Your task to perform on an android device: Open internet settings Image 0: 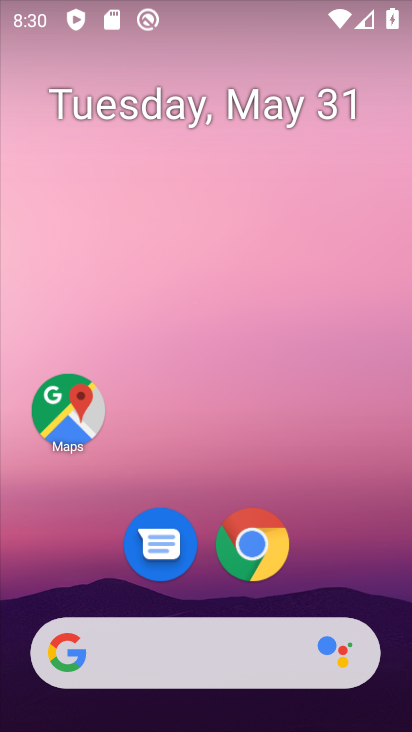
Step 0: drag from (335, 505) to (382, 21)
Your task to perform on an android device: Open internet settings Image 1: 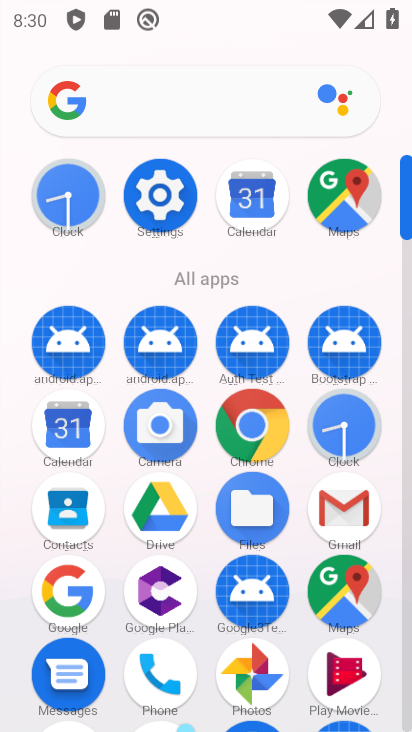
Step 1: click (163, 205)
Your task to perform on an android device: Open internet settings Image 2: 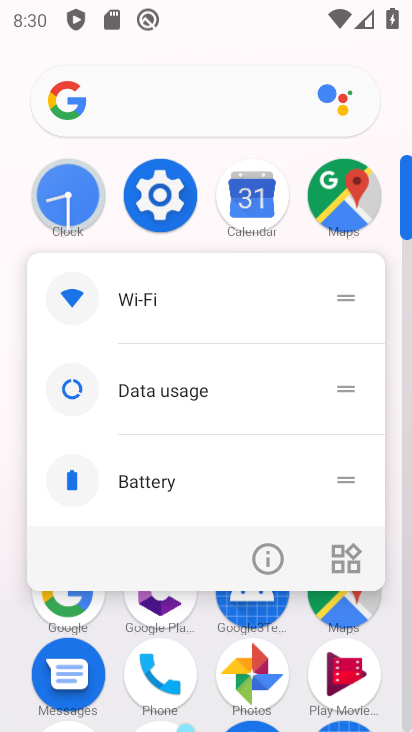
Step 2: click (164, 190)
Your task to perform on an android device: Open internet settings Image 3: 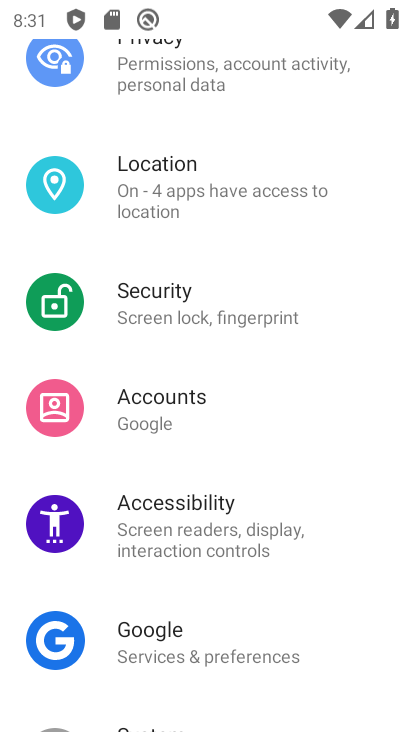
Step 3: drag from (200, 189) to (241, 668)
Your task to perform on an android device: Open internet settings Image 4: 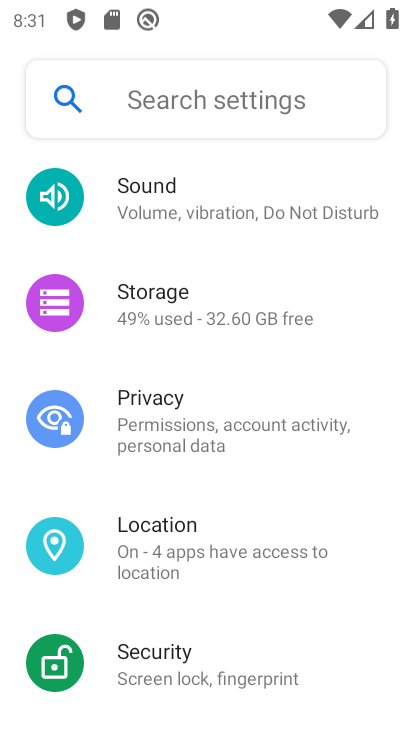
Step 4: drag from (203, 248) to (181, 715)
Your task to perform on an android device: Open internet settings Image 5: 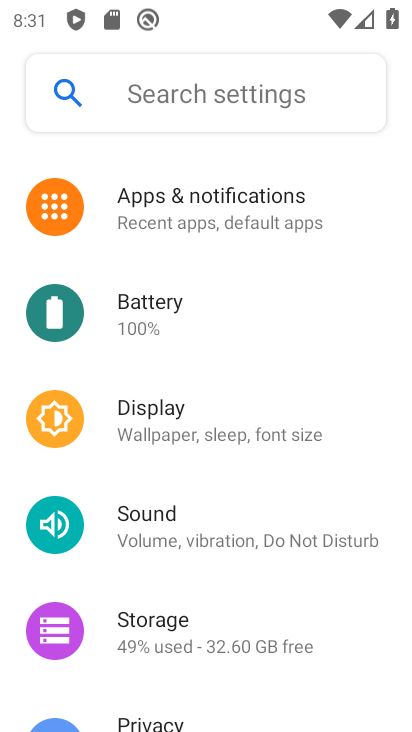
Step 5: drag from (200, 297) to (193, 718)
Your task to perform on an android device: Open internet settings Image 6: 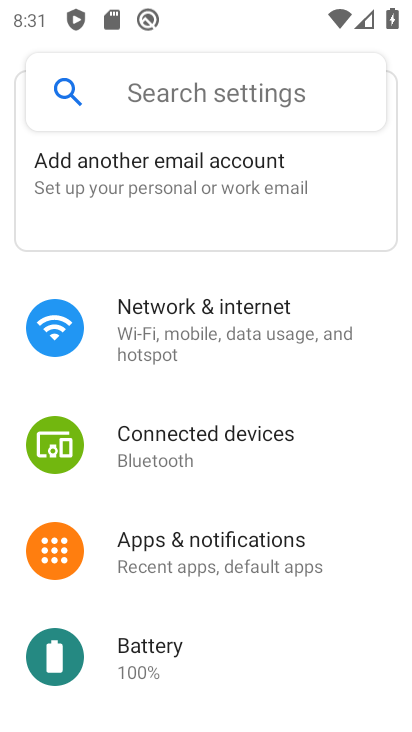
Step 6: click (227, 305)
Your task to perform on an android device: Open internet settings Image 7: 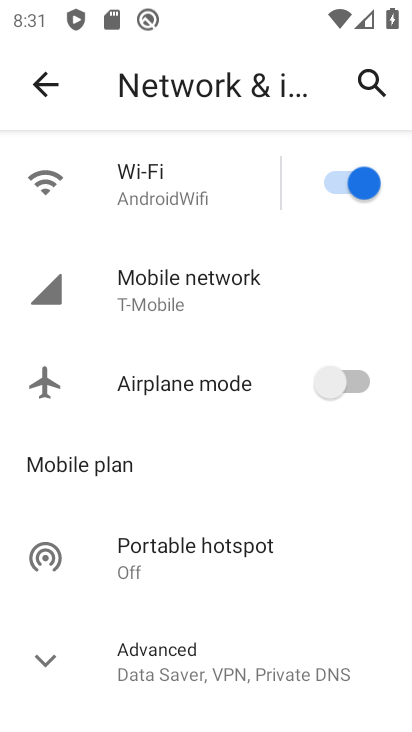
Step 7: click (126, 301)
Your task to perform on an android device: Open internet settings Image 8: 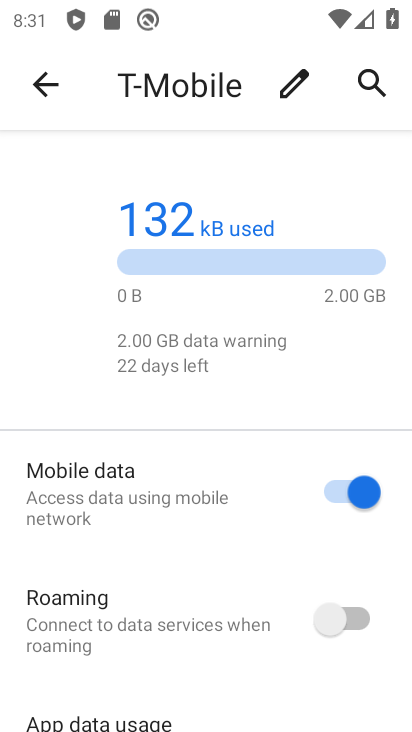
Step 8: task complete